Your task to perform on an android device: Open privacy settings Image 0: 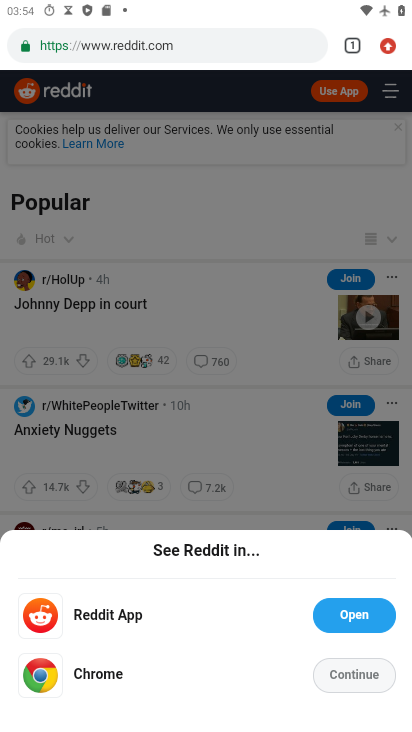
Step 0: drag from (384, 40) to (247, 602)
Your task to perform on an android device: Open privacy settings Image 1: 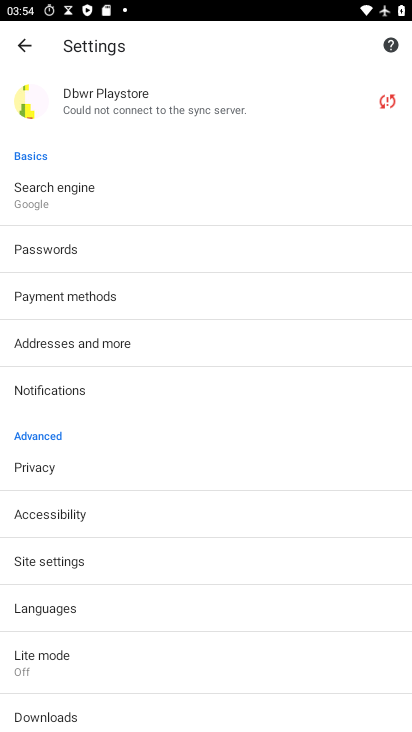
Step 1: click (49, 470)
Your task to perform on an android device: Open privacy settings Image 2: 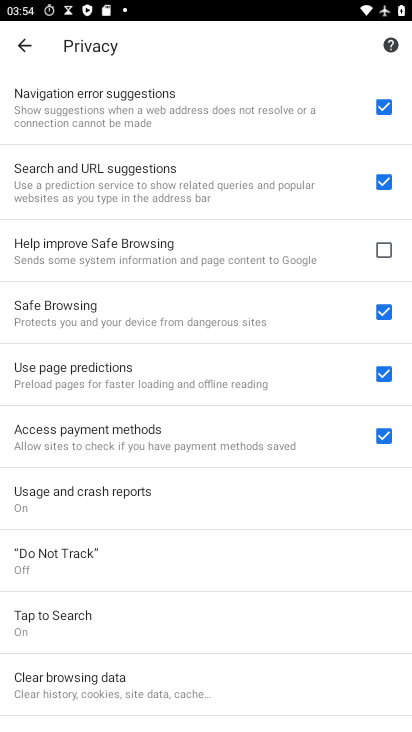
Step 2: task complete